Your task to perform on an android device: What's the weather going to be tomorrow? Image 0: 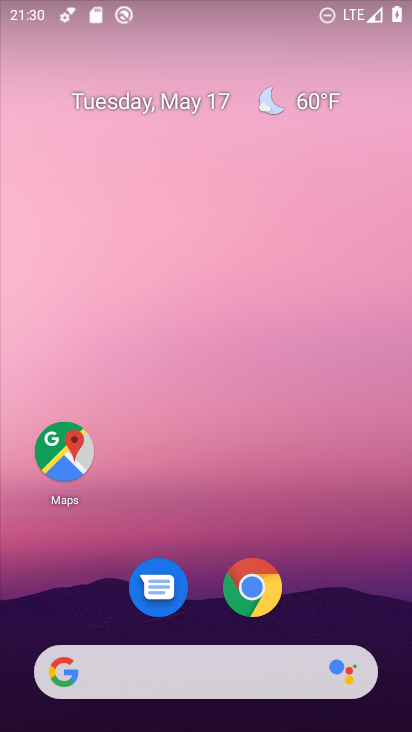
Step 0: drag from (196, 523) to (180, 175)
Your task to perform on an android device: What's the weather going to be tomorrow? Image 1: 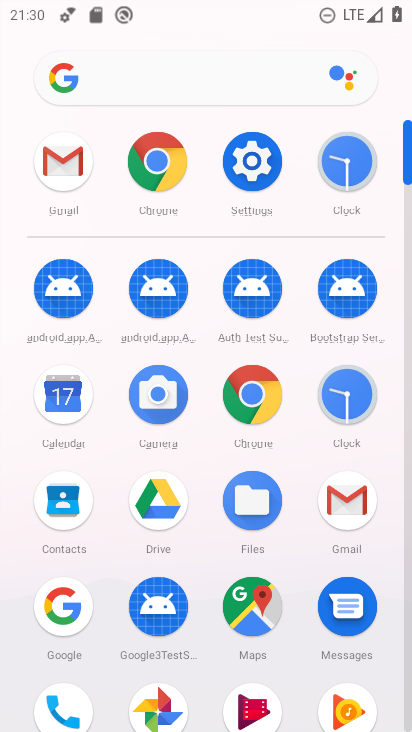
Step 1: click (64, 611)
Your task to perform on an android device: What's the weather going to be tomorrow? Image 2: 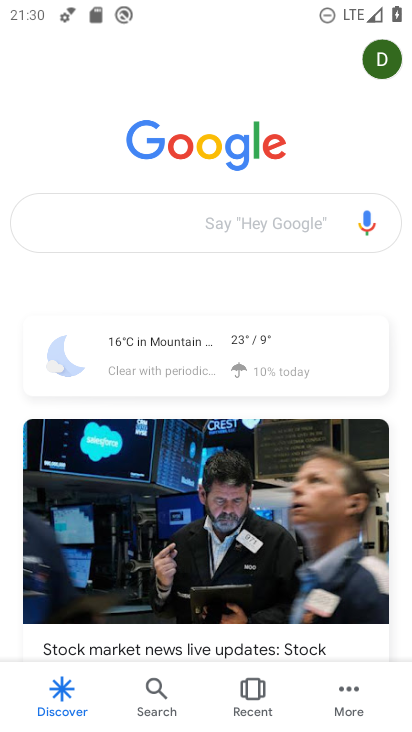
Step 2: click (111, 373)
Your task to perform on an android device: What's the weather going to be tomorrow? Image 3: 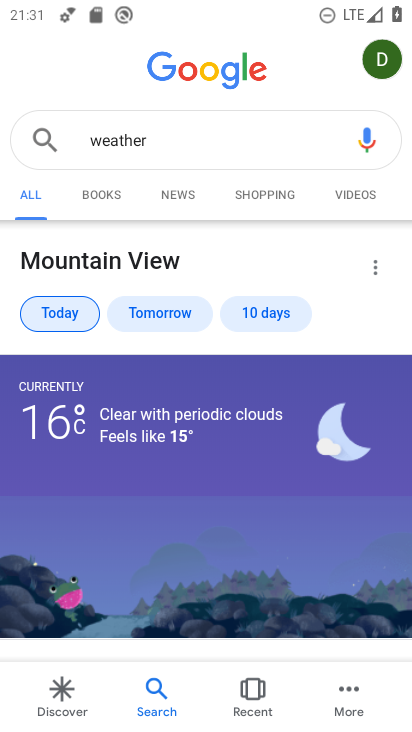
Step 3: click (139, 314)
Your task to perform on an android device: What's the weather going to be tomorrow? Image 4: 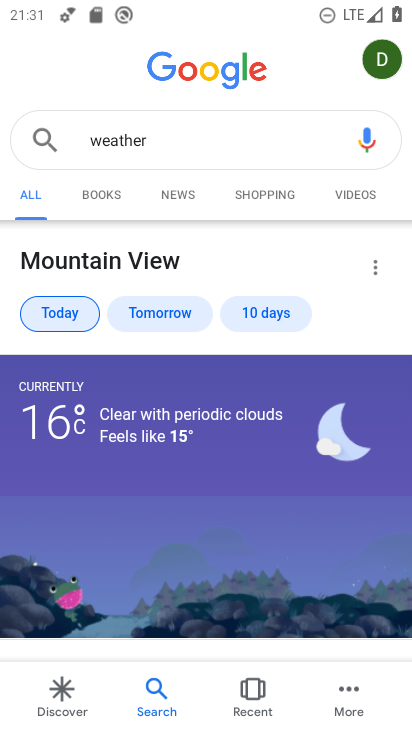
Step 4: click (154, 315)
Your task to perform on an android device: What's the weather going to be tomorrow? Image 5: 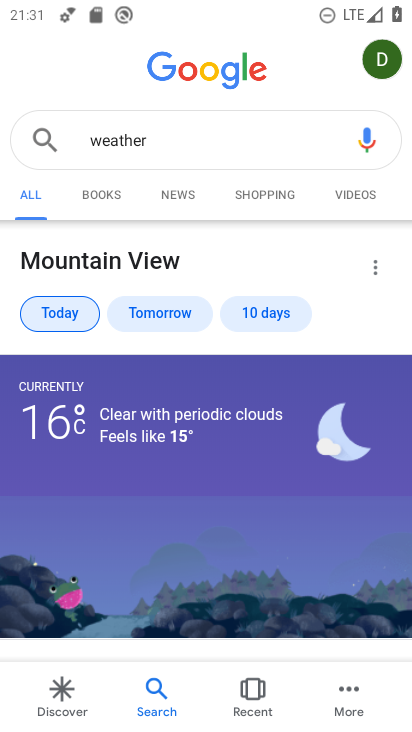
Step 5: drag from (158, 342) to (142, 212)
Your task to perform on an android device: What's the weather going to be tomorrow? Image 6: 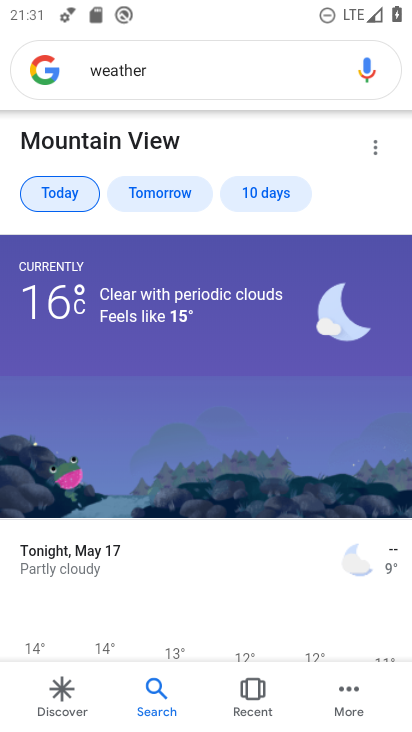
Step 6: click (141, 188)
Your task to perform on an android device: What's the weather going to be tomorrow? Image 7: 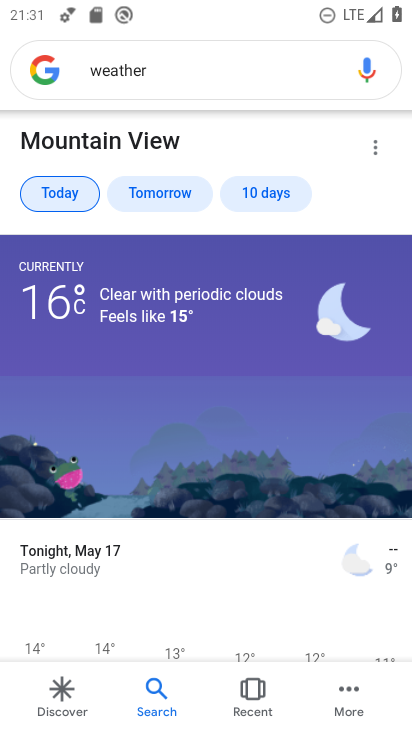
Step 7: click (128, 197)
Your task to perform on an android device: What's the weather going to be tomorrow? Image 8: 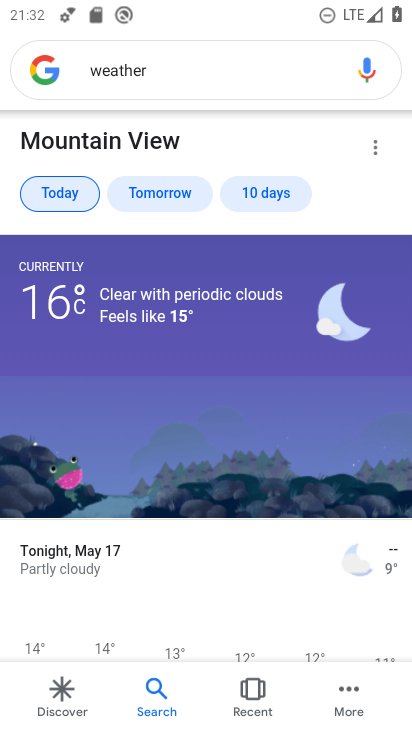
Step 8: click (143, 200)
Your task to perform on an android device: What's the weather going to be tomorrow? Image 9: 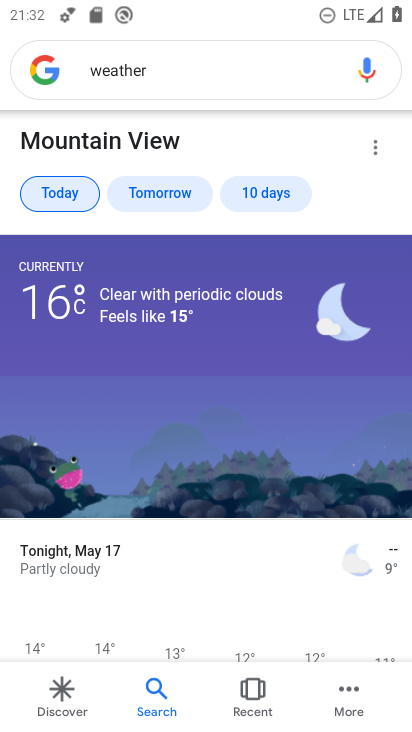
Step 9: click (195, 195)
Your task to perform on an android device: What's the weather going to be tomorrow? Image 10: 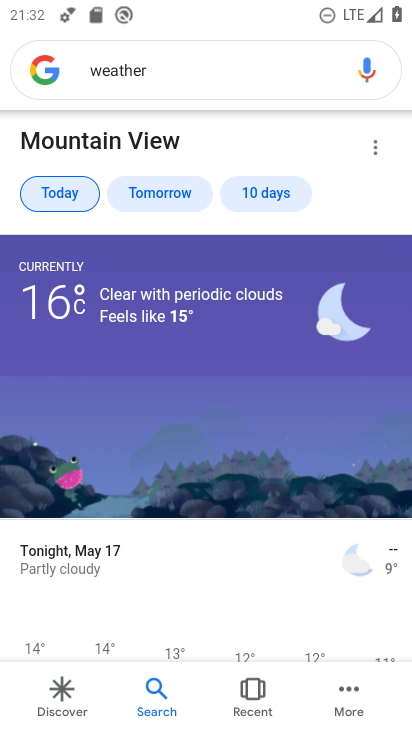
Step 10: task complete